Your task to perform on an android device: toggle show notifications on the lock screen Image 0: 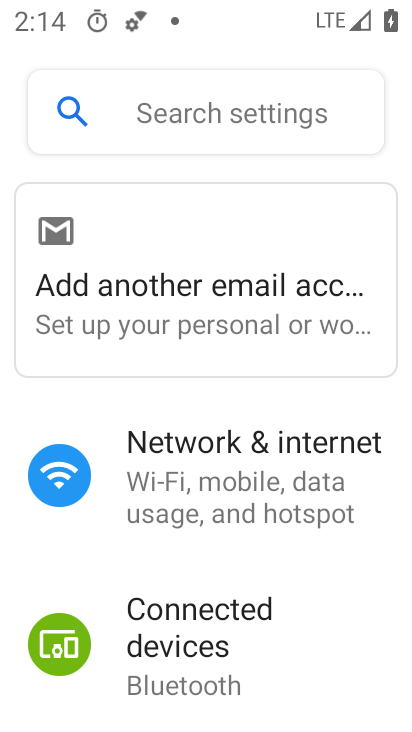
Step 0: drag from (204, 573) to (246, 327)
Your task to perform on an android device: toggle show notifications on the lock screen Image 1: 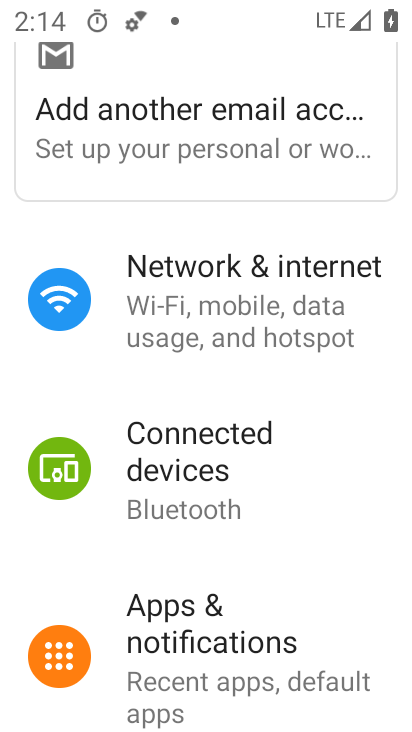
Step 1: click (201, 618)
Your task to perform on an android device: toggle show notifications on the lock screen Image 2: 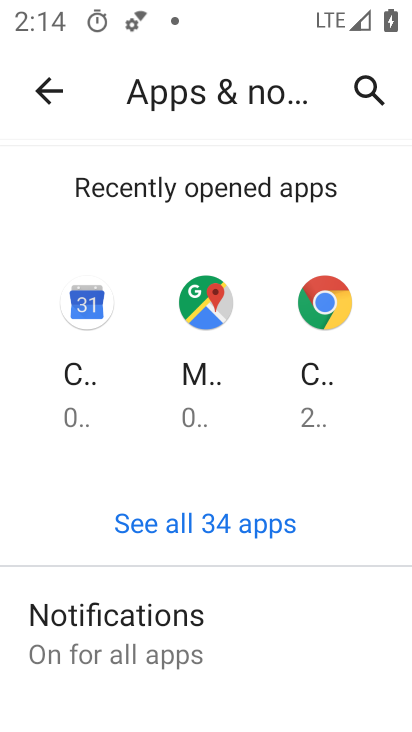
Step 2: drag from (232, 683) to (365, 385)
Your task to perform on an android device: toggle show notifications on the lock screen Image 3: 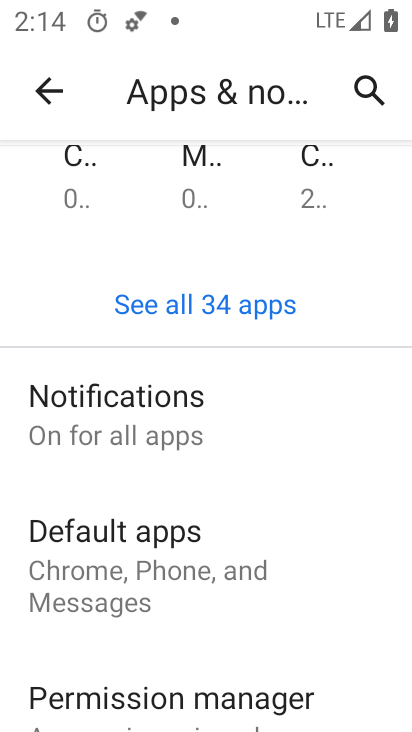
Step 3: click (91, 424)
Your task to perform on an android device: toggle show notifications on the lock screen Image 4: 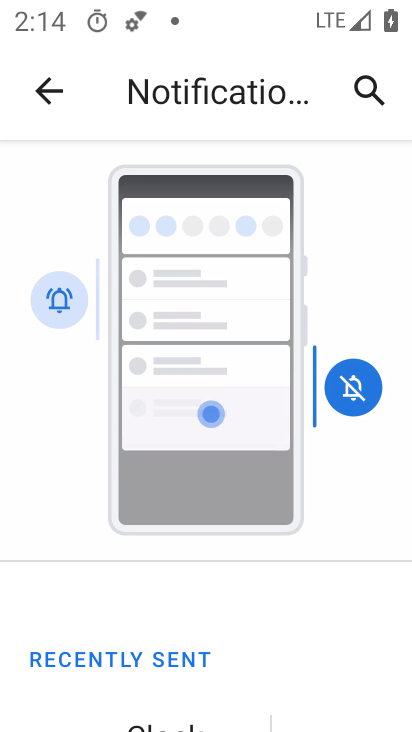
Step 4: drag from (155, 638) to (232, 242)
Your task to perform on an android device: toggle show notifications on the lock screen Image 5: 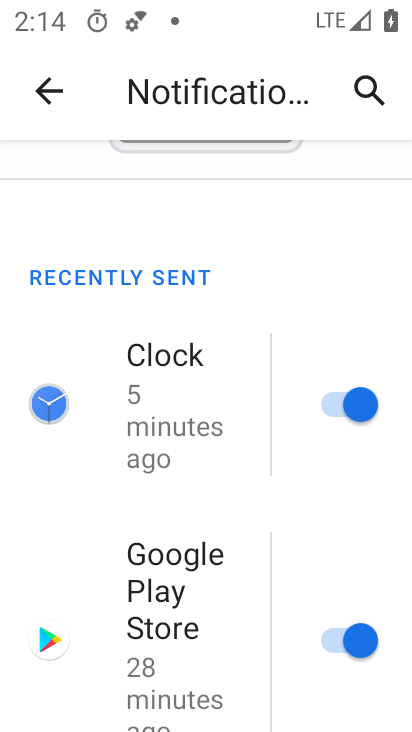
Step 5: drag from (245, 615) to (289, 273)
Your task to perform on an android device: toggle show notifications on the lock screen Image 6: 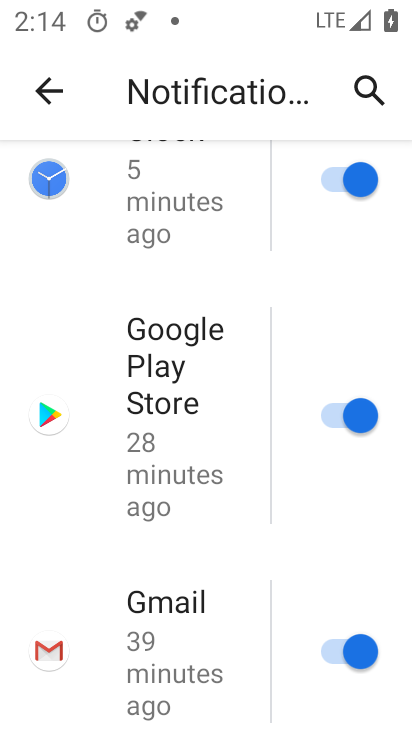
Step 6: drag from (235, 646) to (230, 225)
Your task to perform on an android device: toggle show notifications on the lock screen Image 7: 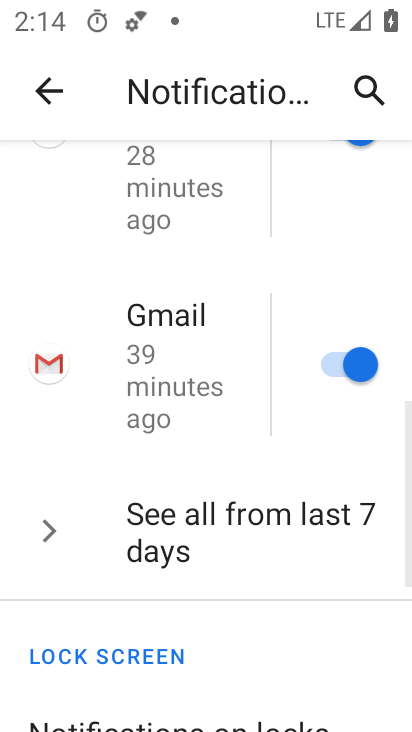
Step 7: drag from (189, 603) to (189, 268)
Your task to perform on an android device: toggle show notifications on the lock screen Image 8: 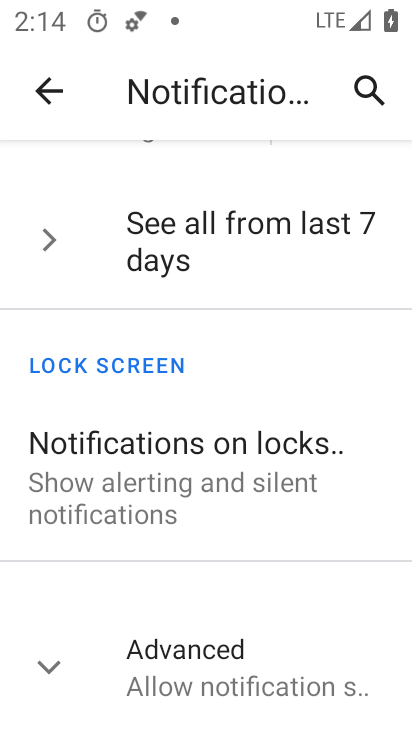
Step 8: click (82, 485)
Your task to perform on an android device: toggle show notifications on the lock screen Image 9: 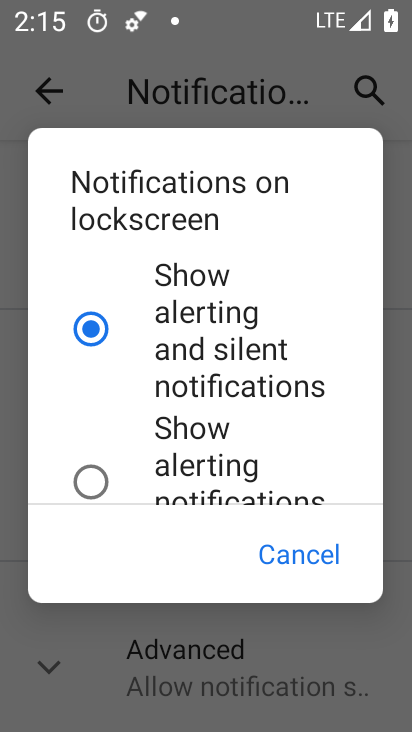
Step 9: task complete